Your task to perform on an android device: Open the Play Movies app and select the watchlist tab. Image 0: 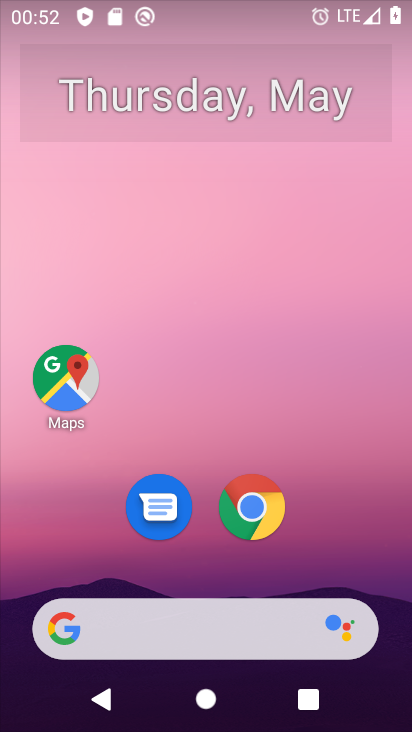
Step 0: drag from (215, 589) to (234, 182)
Your task to perform on an android device: Open the Play Movies app and select the watchlist tab. Image 1: 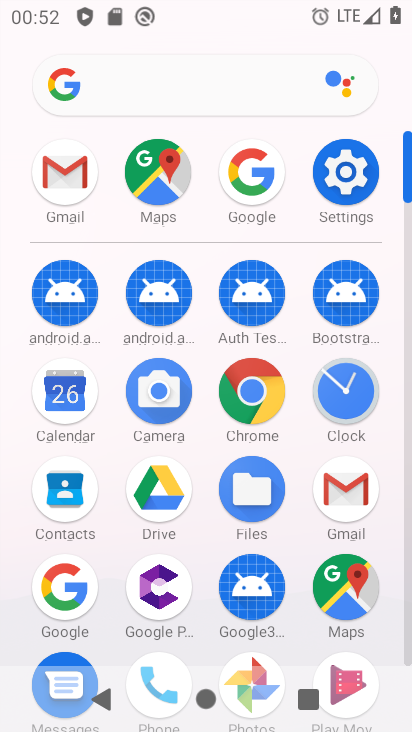
Step 1: drag from (284, 547) to (289, 447)
Your task to perform on an android device: Open the Play Movies app and select the watchlist tab. Image 2: 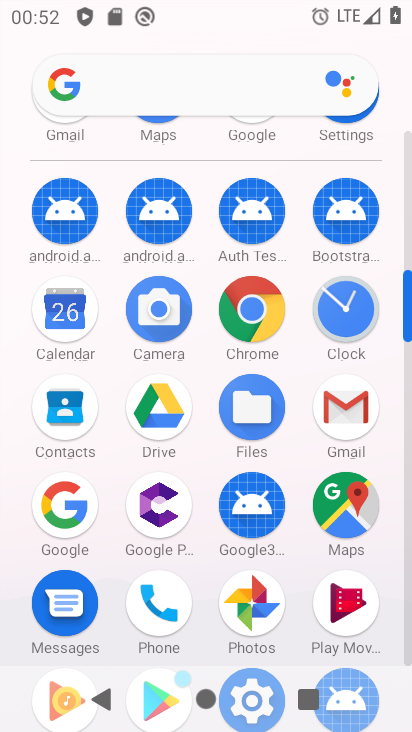
Step 2: click (333, 593)
Your task to perform on an android device: Open the Play Movies app and select the watchlist tab. Image 3: 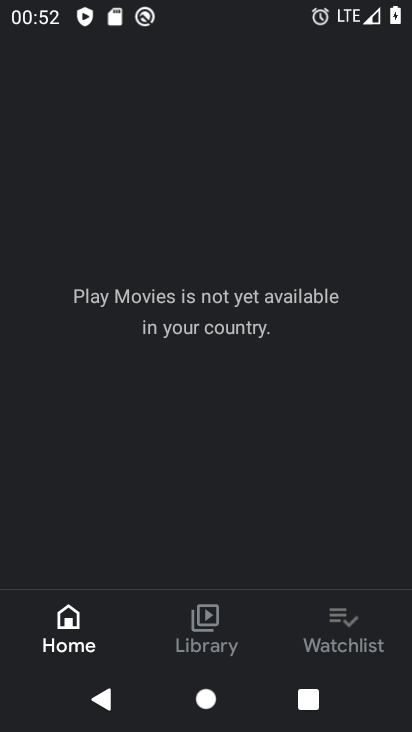
Step 3: click (361, 630)
Your task to perform on an android device: Open the Play Movies app and select the watchlist tab. Image 4: 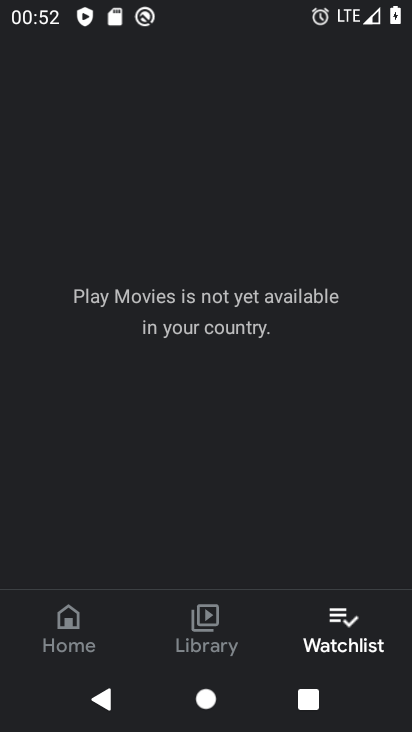
Step 4: task complete